Your task to perform on an android device: open app "Walmart Shopping & Grocery" (install if not already installed) and enter user name: "Hans@icloud.com" and password: "executing" Image 0: 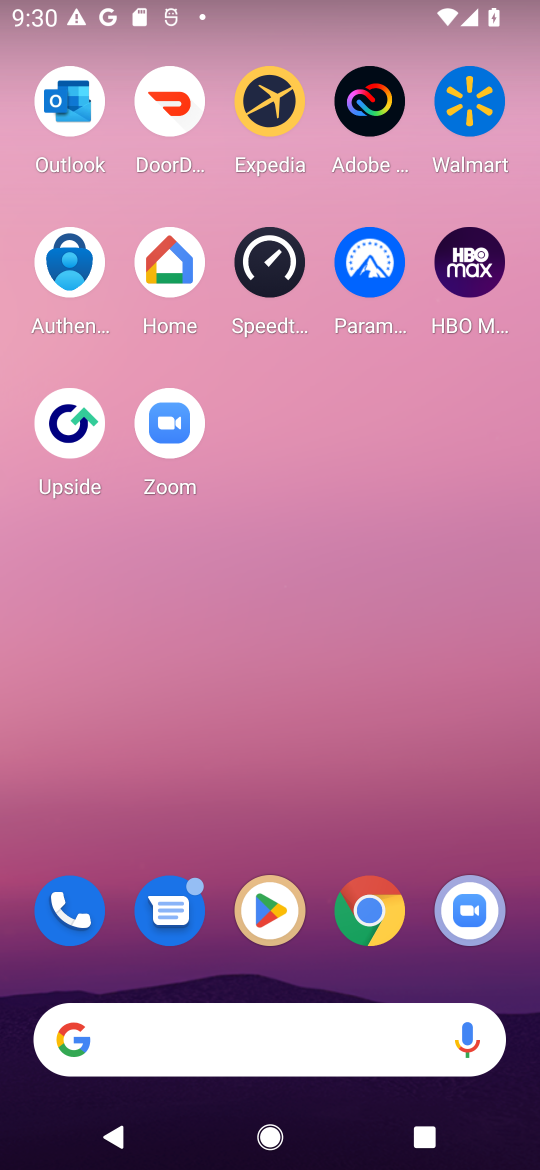
Step 0: click (269, 920)
Your task to perform on an android device: open app "Walmart Shopping & Grocery" (install if not already installed) and enter user name: "Hans@icloud.com" and password: "executing" Image 1: 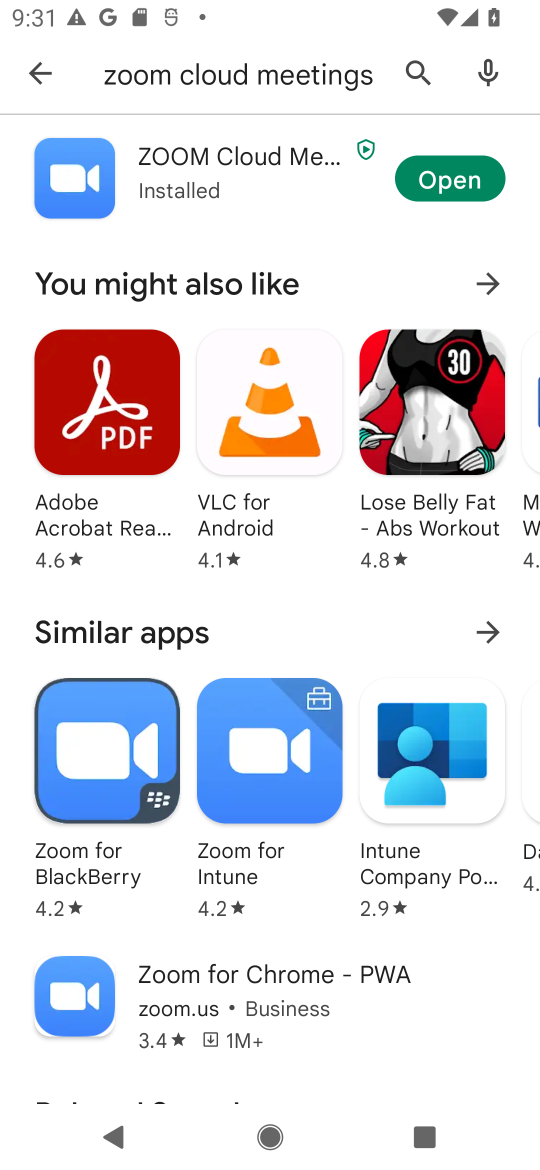
Step 1: click (424, 65)
Your task to perform on an android device: open app "Walmart Shopping & Grocery" (install if not already installed) and enter user name: "Hans@icloud.com" and password: "executing" Image 2: 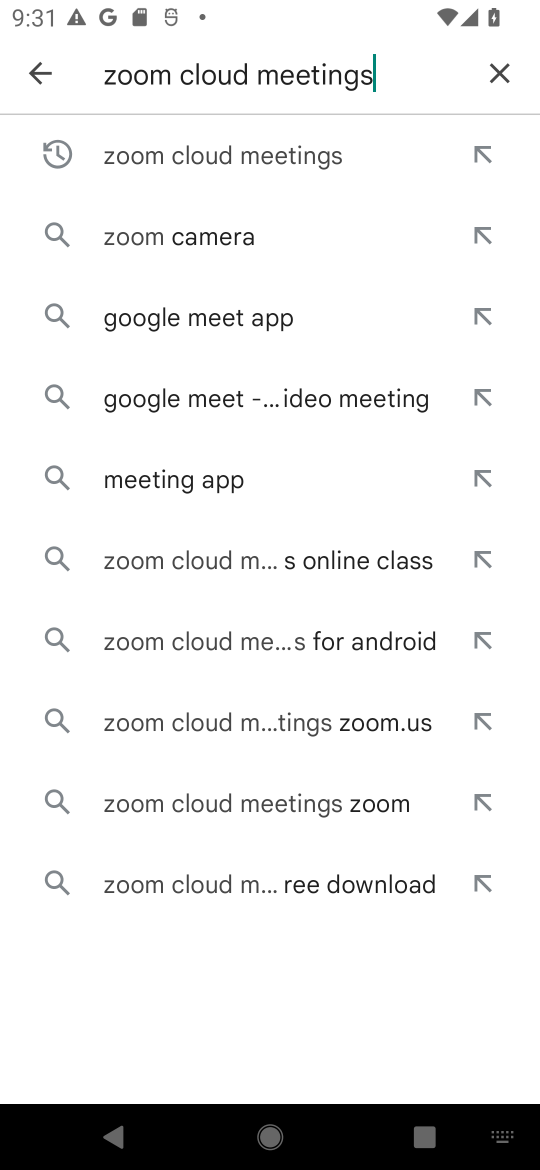
Step 2: click (515, 81)
Your task to perform on an android device: open app "Walmart Shopping & Grocery" (install if not already installed) and enter user name: "Hans@icloud.com" and password: "executing" Image 3: 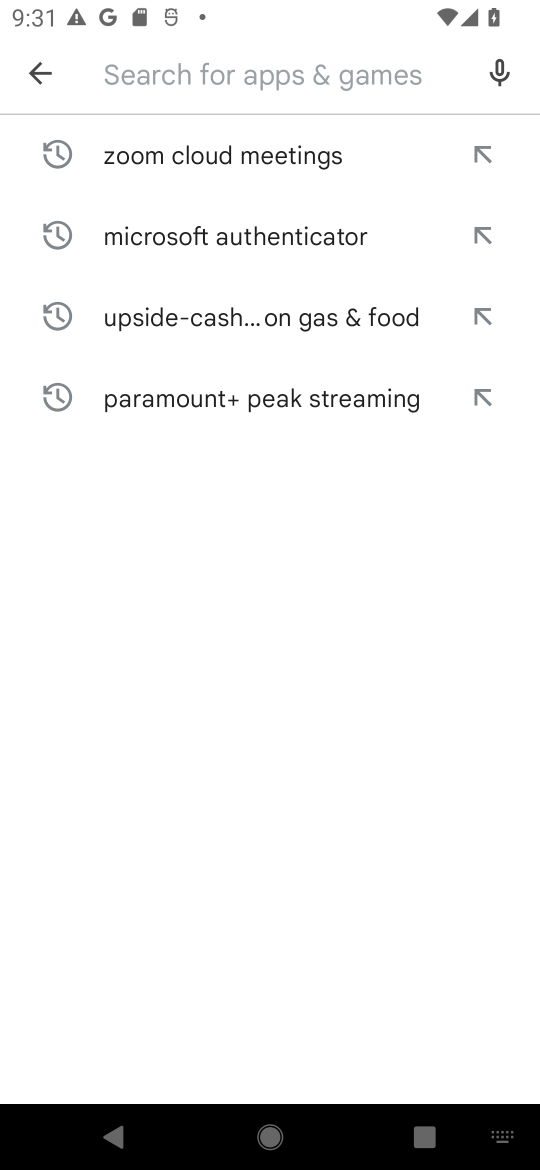
Step 3: type "Walmart Shopping & Grocery"
Your task to perform on an android device: open app "Walmart Shopping & Grocery" (install if not already installed) and enter user name: "Hans@icloud.com" and password: "executing" Image 4: 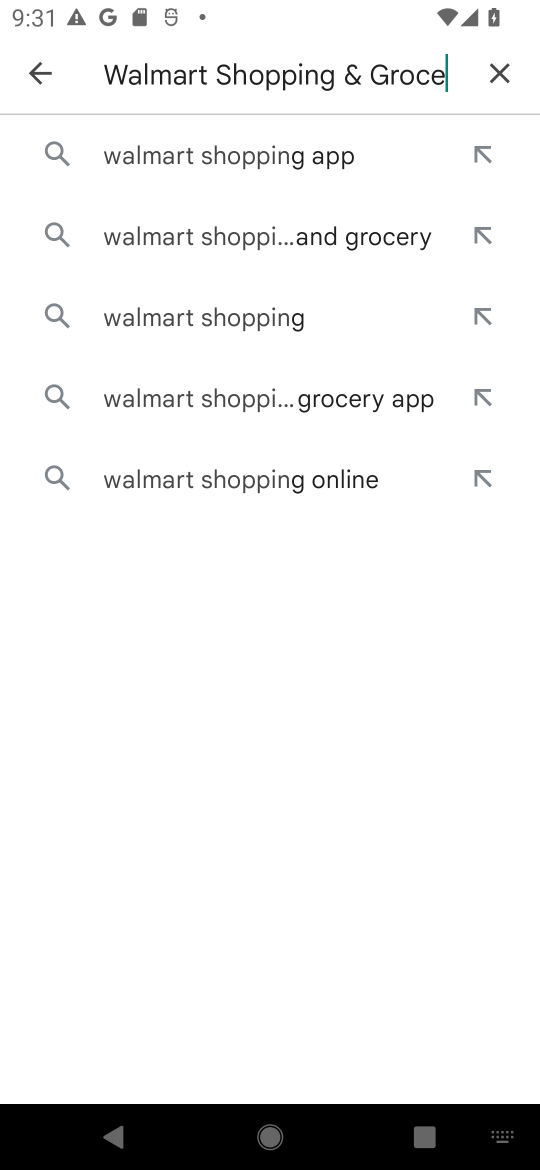
Step 4: type ""
Your task to perform on an android device: open app "Walmart Shopping & Grocery" (install if not already installed) and enter user name: "Hans@icloud.com" and password: "executing" Image 5: 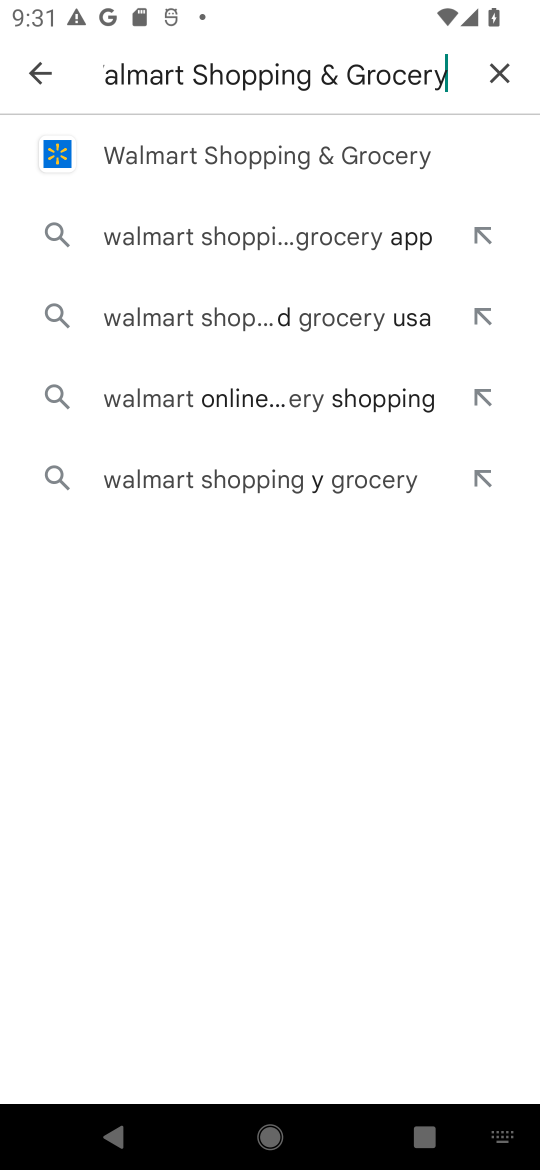
Step 5: click (344, 153)
Your task to perform on an android device: open app "Walmart Shopping & Grocery" (install if not already installed) and enter user name: "Hans@icloud.com" and password: "executing" Image 6: 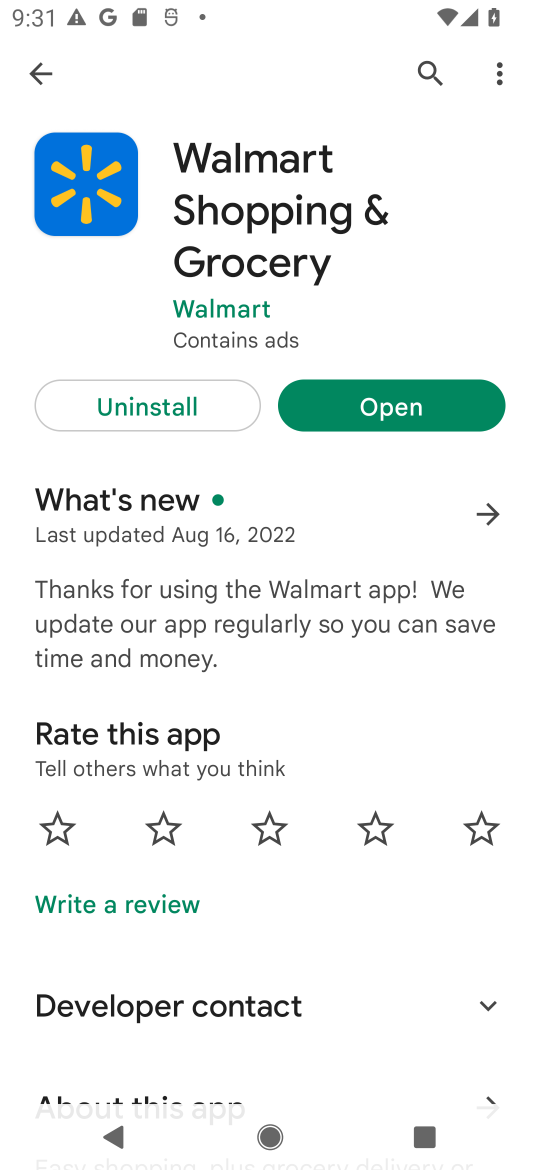
Step 6: click (334, 406)
Your task to perform on an android device: open app "Walmart Shopping & Grocery" (install if not already installed) and enter user name: "Hans@icloud.com" and password: "executing" Image 7: 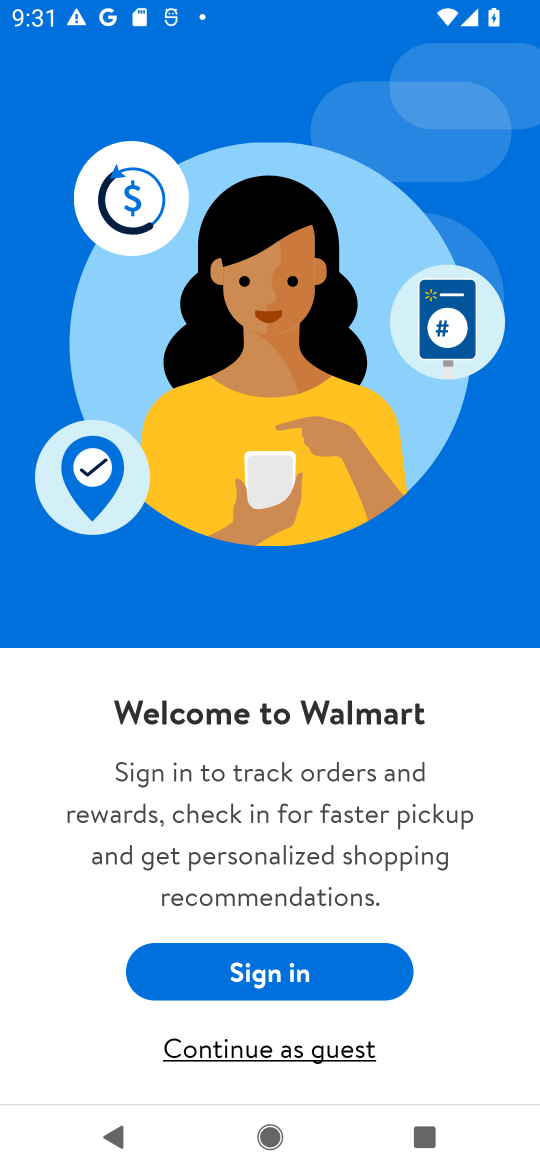
Step 7: click (307, 977)
Your task to perform on an android device: open app "Walmart Shopping & Grocery" (install if not already installed) and enter user name: "Hans@icloud.com" and password: "executing" Image 8: 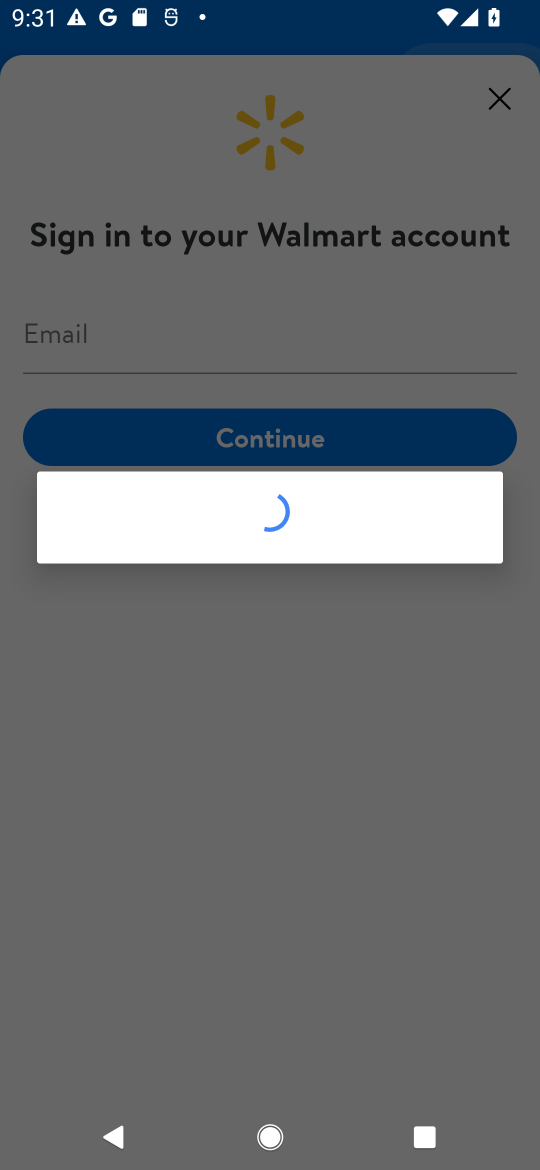
Step 8: click (131, 327)
Your task to perform on an android device: open app "Walmart Shopping & Grocery" (install if not already installed) and enter user name: "Hans@icloud.com" and password: "executing" Image 9: 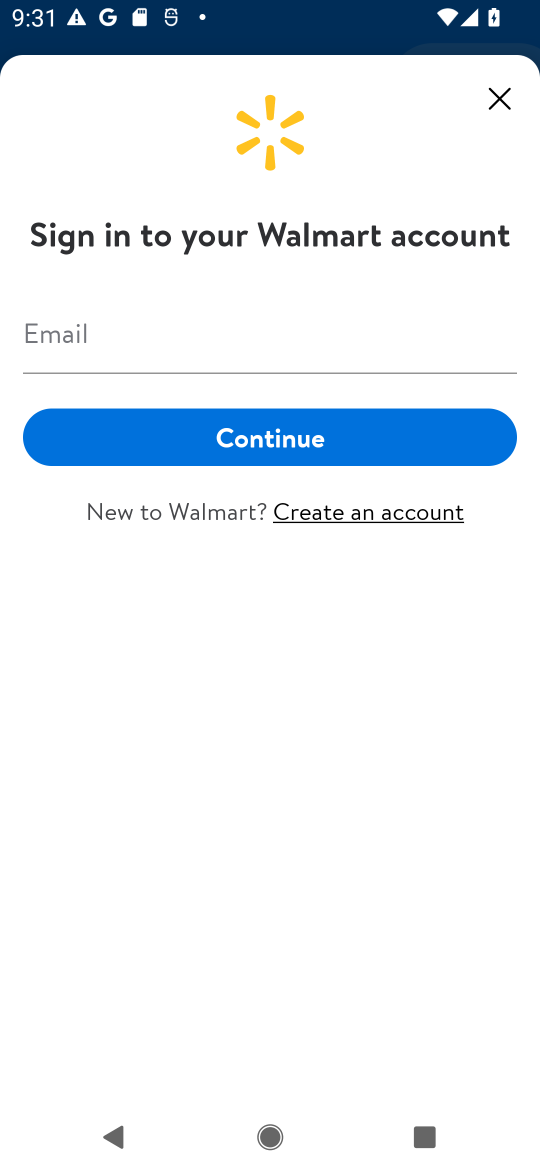
Step 9: click (182, 340)
Your task to perform on an android device: open app "Walmart Shopping & Grocery" (install if not already installed) and enter user name: "Hans@icloud.com" and password: "executing" Image 10: 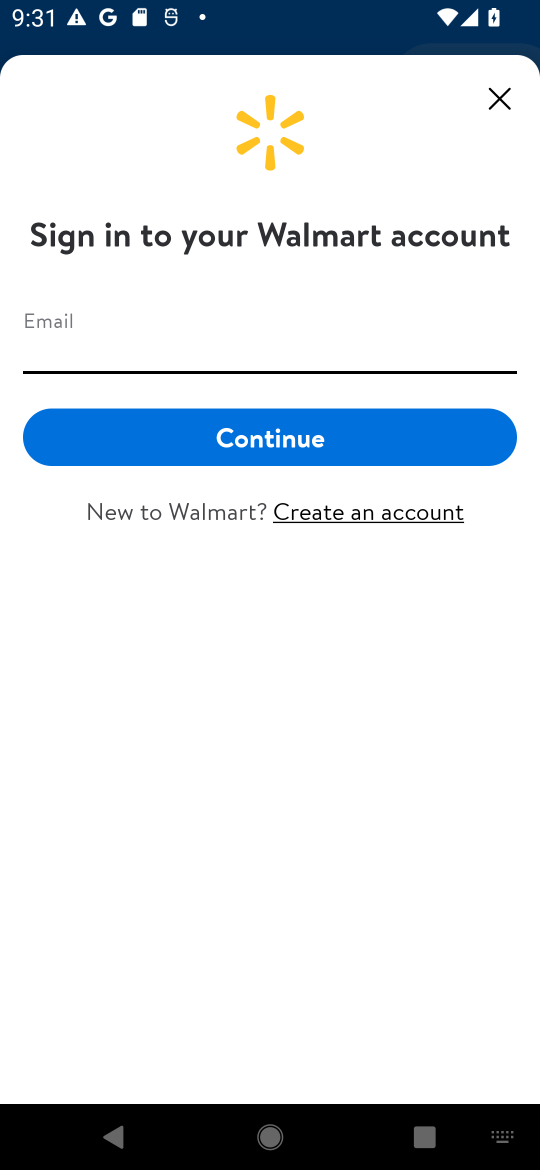
Step 10: type "Hans@icloud.com"
Your task to perform on an android device: open app "Walmart Shopping & Grocery" (install if not already installed) and enter user name: "Hans@icloud.com" and password: "executing" Image 11: 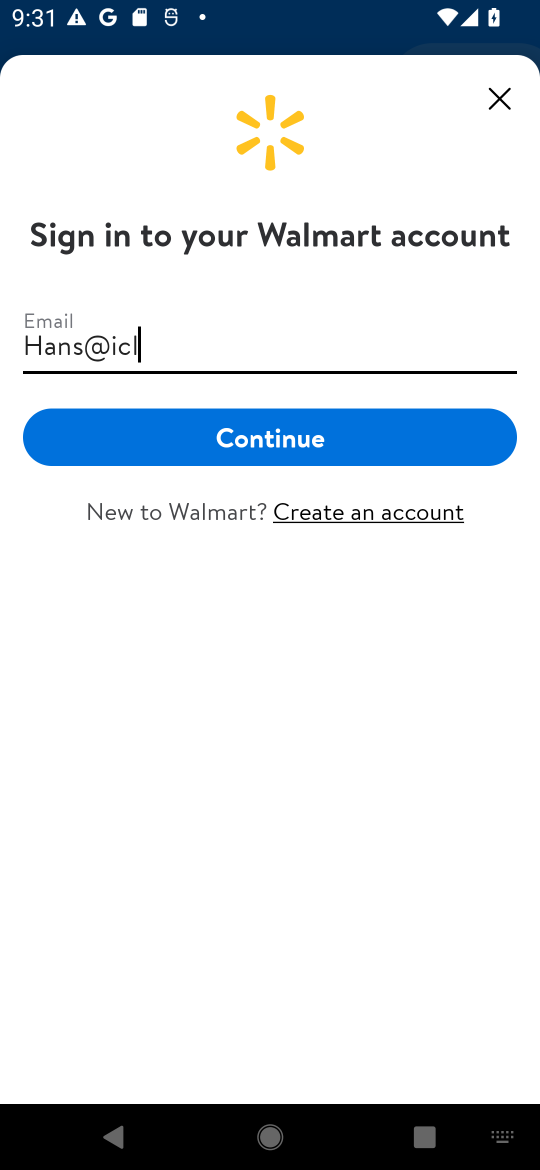
Step 11: type ""
Your task to perform on an android device: open app "Walmart Shopping & Grocery" (install if not already installed) and enter user name: "Hans@icloud.com" and password: "executing" Image 12: 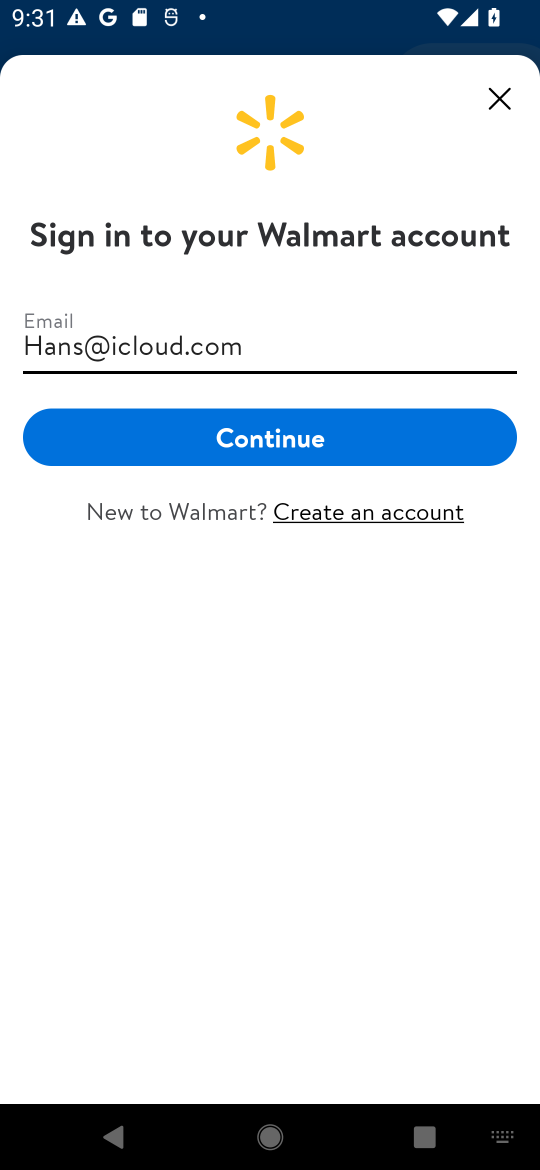
Step 12: click (222, 439)
Your task to perform on an android device: open app "Walmart Shopping & Grocery" (install if not already installed) and enter user name: "Hans@icloud.com" and password: "executing" Image 13: 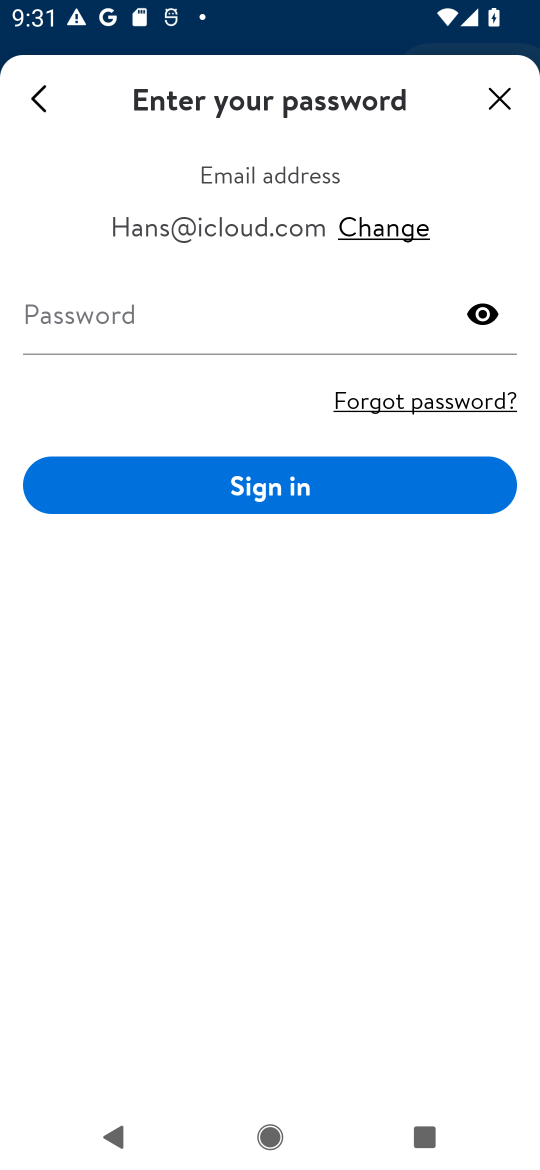
Step 13: click (142, 319)
Your task to perform on an android device: open app "Walmart Shopping & Grocery" (install if not already installed) and enter user name: "Hans@icloud.com" and password: "executing" Image 14: 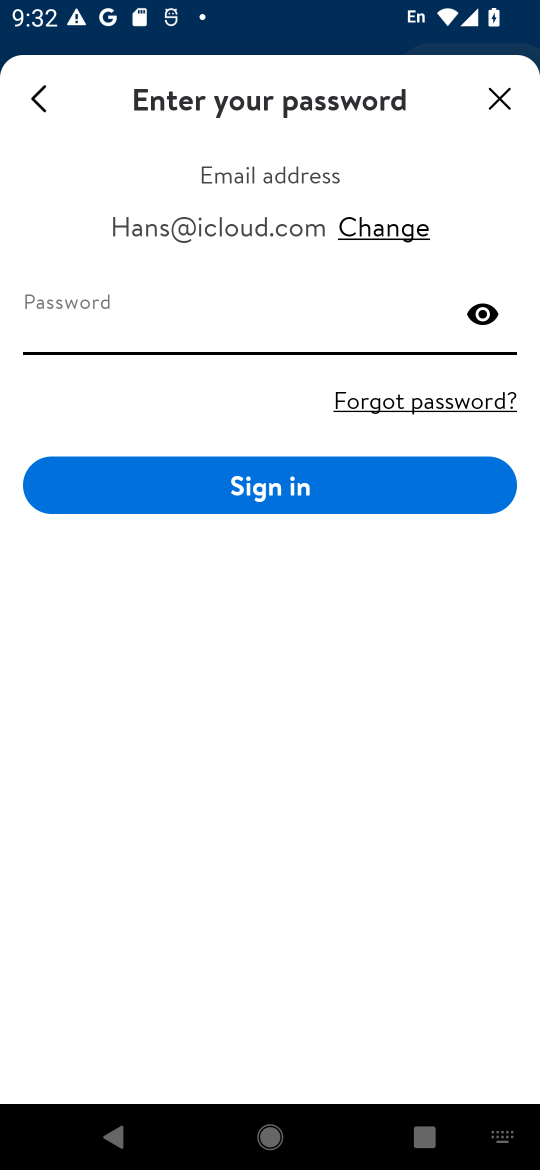
Step 14: type "executing"
Your task to perform on an android device: open app "Walmart Shopping & Grocery" (install if not already installed) and enter user name: "Hans@icloud.com" and password: "executing" Image 15: 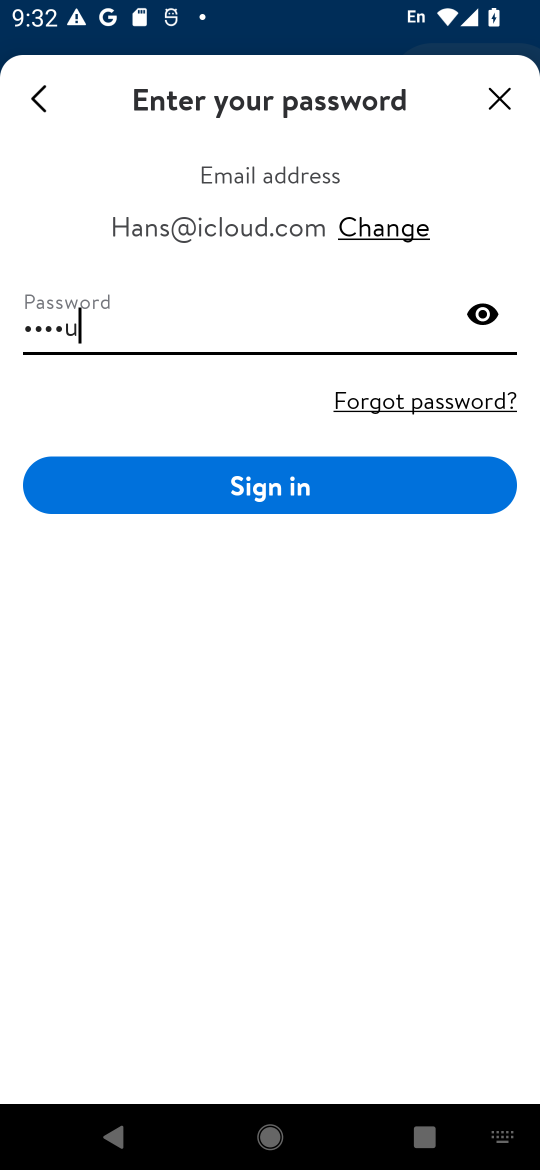
Step 15: type ""
Your task to perform on an android device: open app "Walmart Shopping & Grocery" (install if not already installed) and enter user name: "Hans@icloud.com" and password: "executing" Image 16: 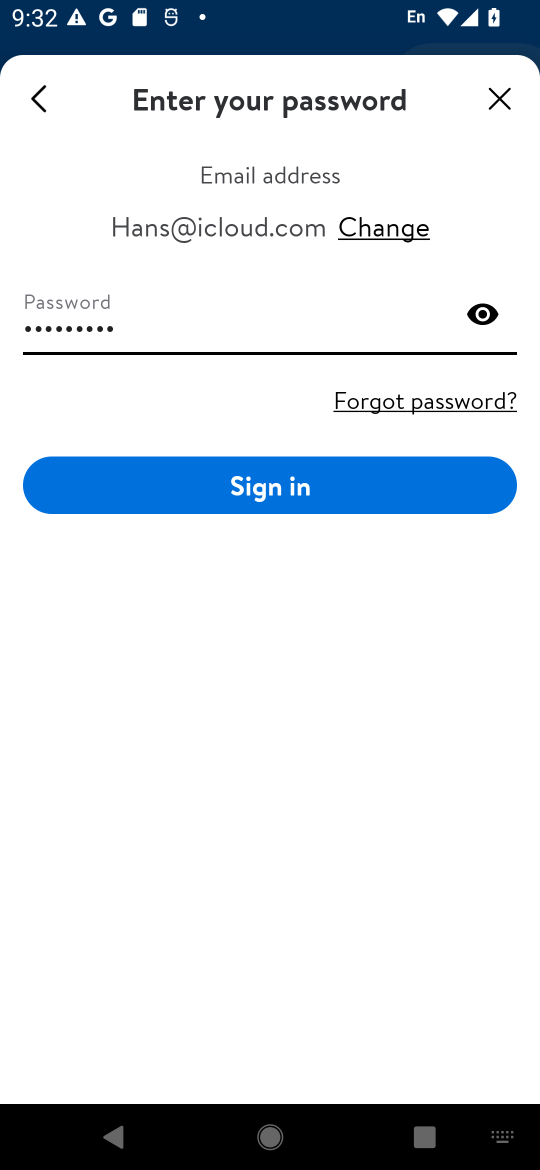
Step 16: click (332, 488)
Your task to perform on an android device: open app "Walmart Shopping & Grocery" (install if not already installed) and enter user name: "Hans@icloud.com" and password: "executing" Image 17: 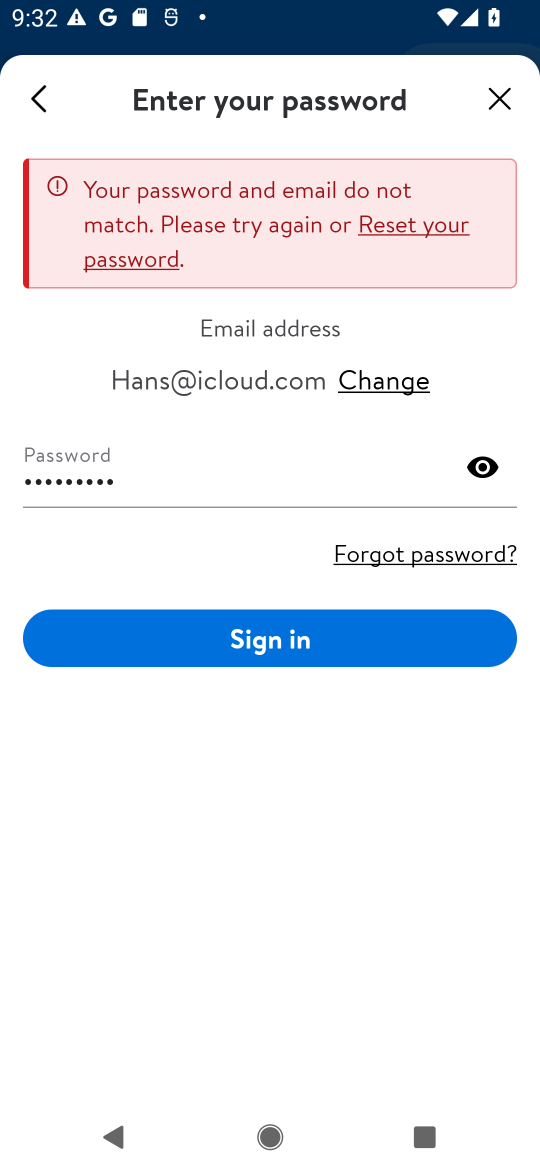
Step 17: task complete